Your task to perform on an android device: Show me recent news Image 0: 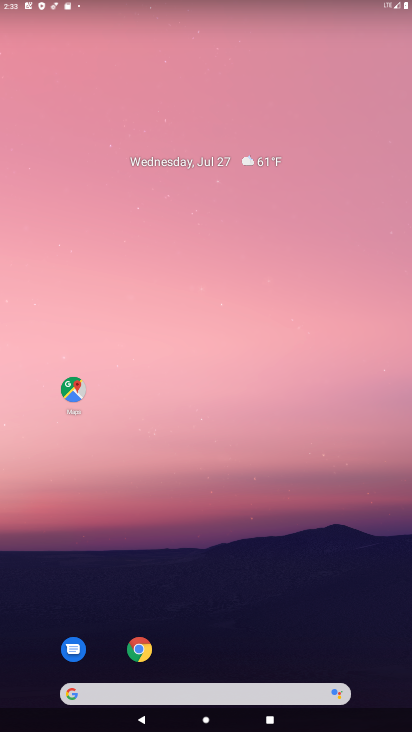
Step 0: click (167, 685)
Your task to perform on an android device: Show me recent news Image 1: 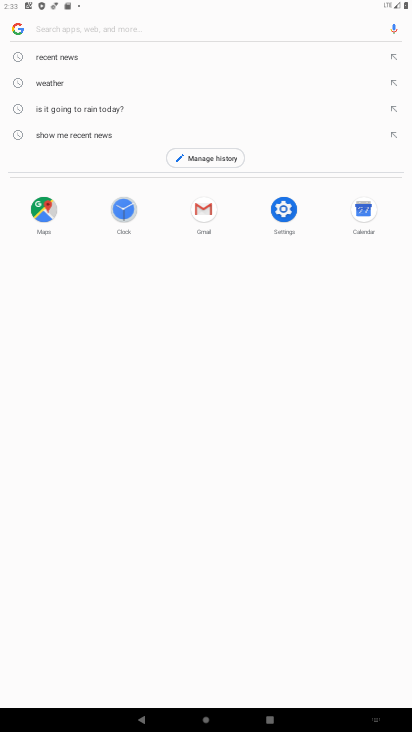
Step 1: click (65, 57)
Your task to perform on an android device: Show me recent news Image 2: 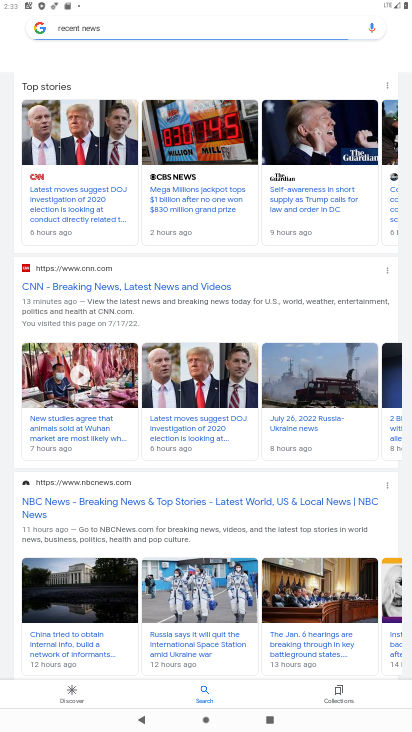
Step 2: task complete